Your task to perform on an android device: toggle airplane mode Image 0: 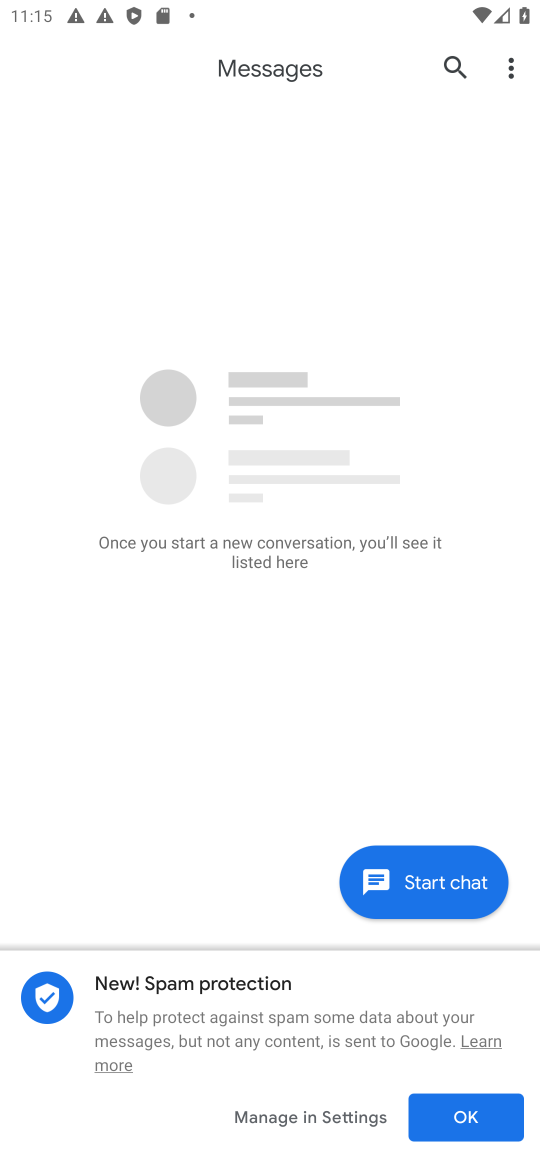
Step 0: press home button
Your task to perform on an android device: toggle airplane mode Image 1: 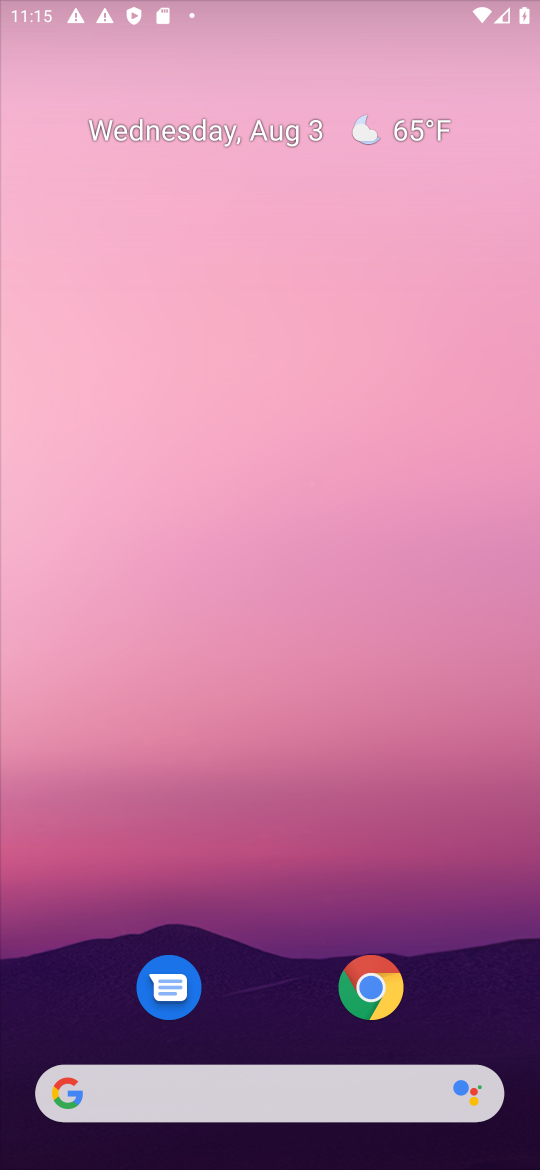
Step 1: drag from (287, 1050) to (254, 640)
Your task to perform on an android device: toggle airplane mode Image 2: 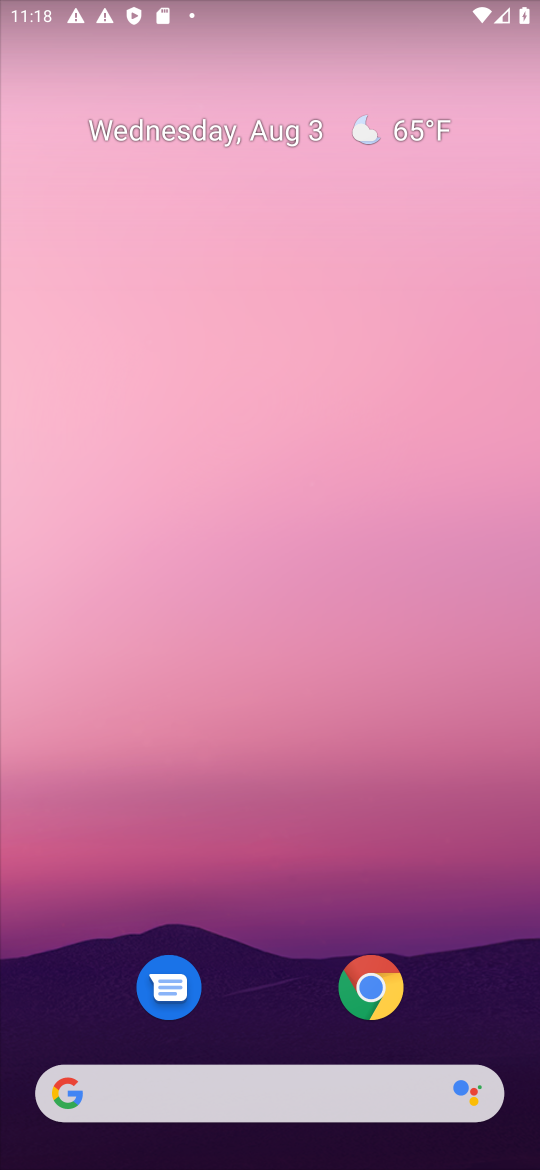
Step 2: drag from (188, 1049) to (206, 42)
Your task to perform on an android device: toggle airplane mode Image 3: 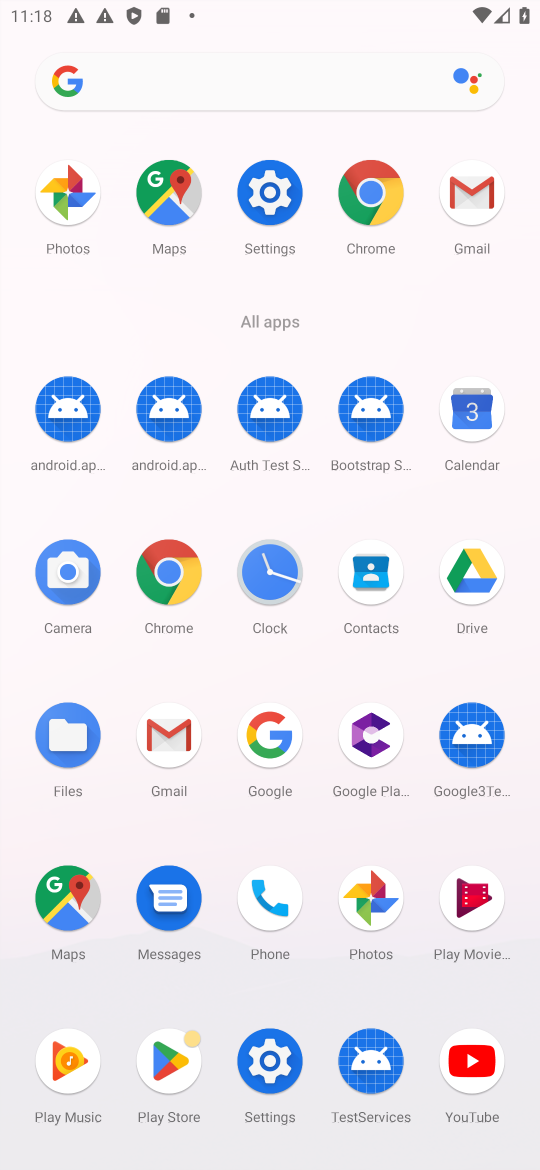
Step 3: click (271, 211)
Your task to perform on an android device: toggle airplane mode Image 4: 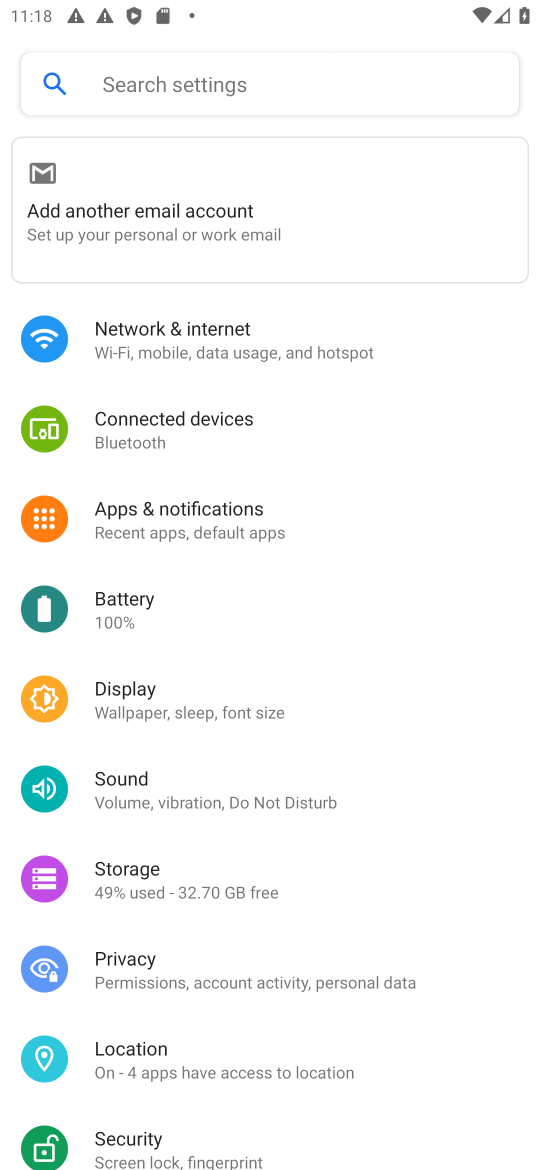
Step 4: click (211, 348)
Your task to perform on an android device: toggle airplane mode Image 5: 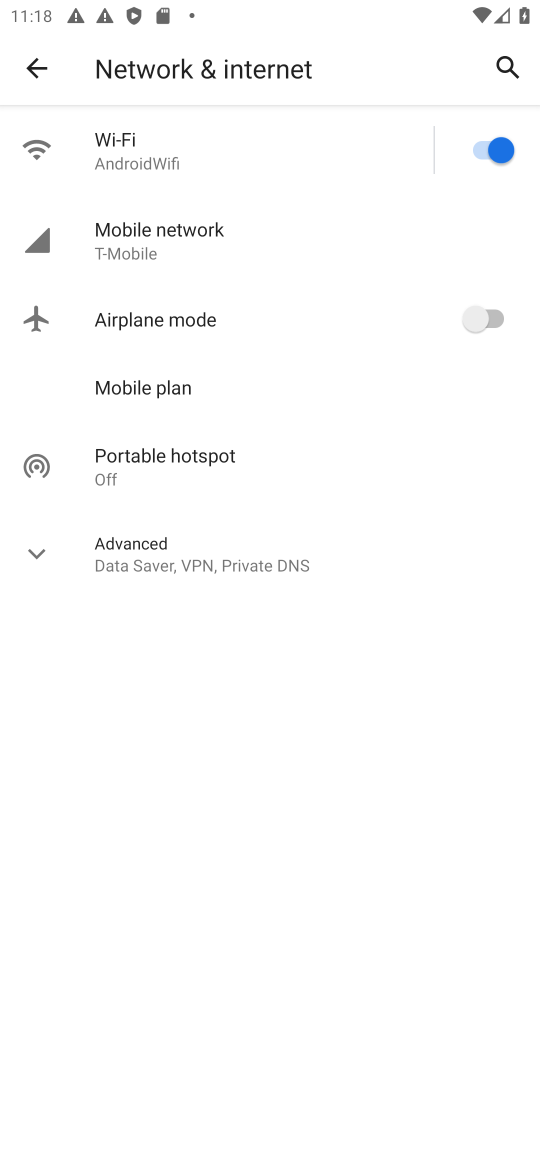
Step 5: click (500, 307)
Your task to perform on an android device: toggle airplane mode Image 6: 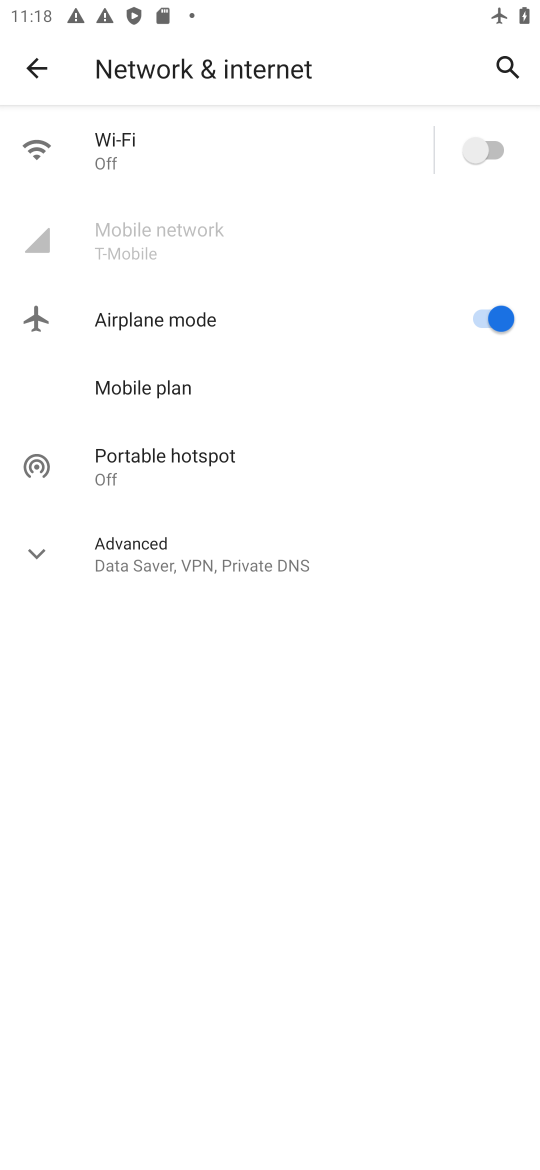
Step 6: task complete